Your task to perform on an android device: stop showing notifications on the lock screen Image 0: 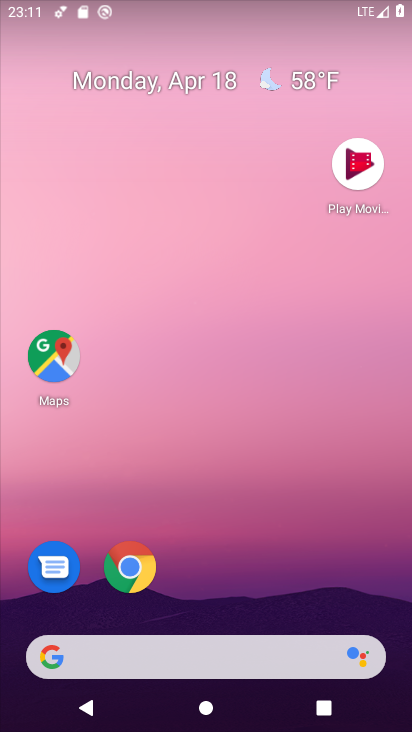
Step 0: drag from (193, 603) to (290, 107)
Your task to perform on an android device: stop showing notifications on the lock screen Image 1: 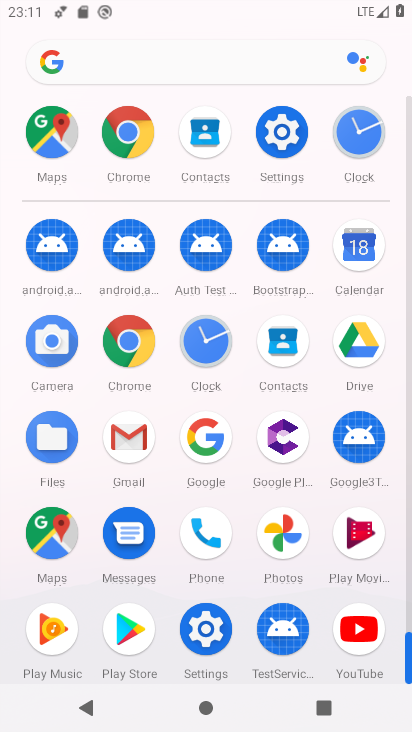
Step 1: click (286, 124)
Your task to perform on an android device: stop showing notifications on the lock screen Image 2: 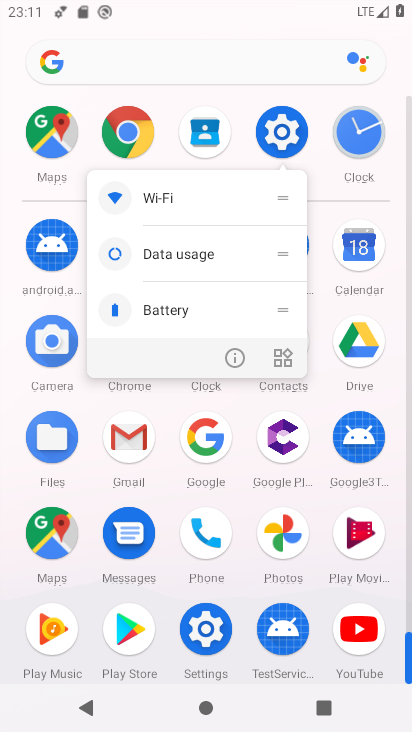
Step 2: click (237, 358)
Your task to perform on an android device: stop showing notifications on the lock screen Image 3: 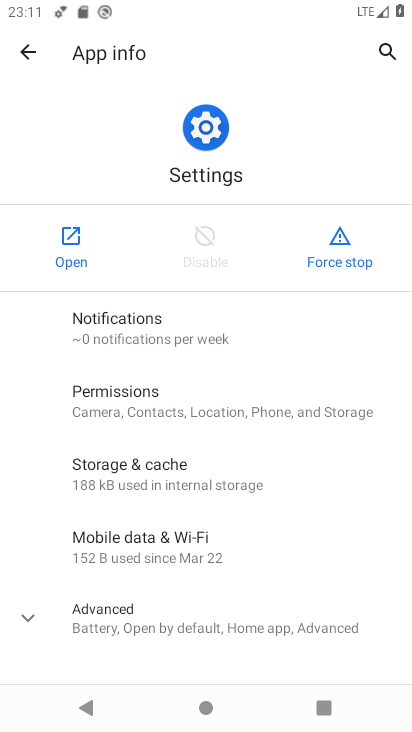
Step 3: click (71, 245)
Your task to perform on an android device: stop showing notifications on the lock screen Image 4: 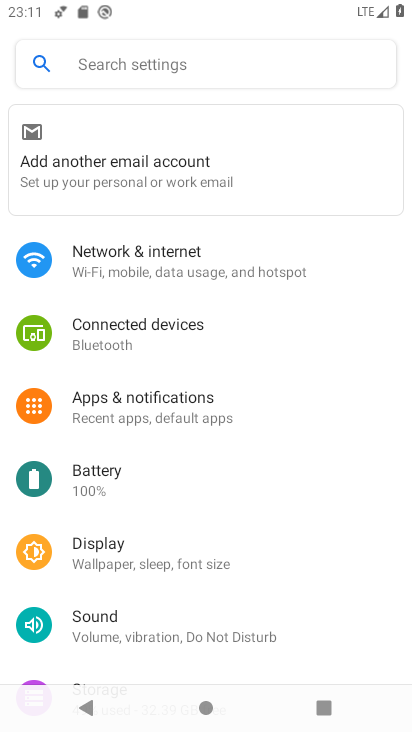
Step 4: click (231, 411)
Your task to perform on an android device: stop showing notifications on the lock screen Image 5: 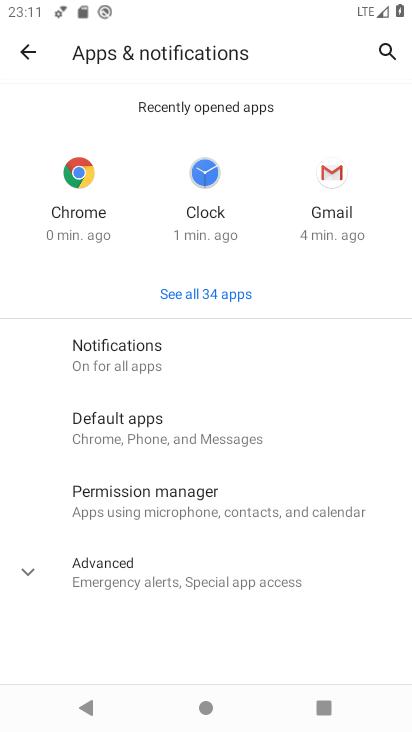
Step 5: click (175, 351)
Your task to perform on an android device: stop showing notifications on the lock screen Image 6: 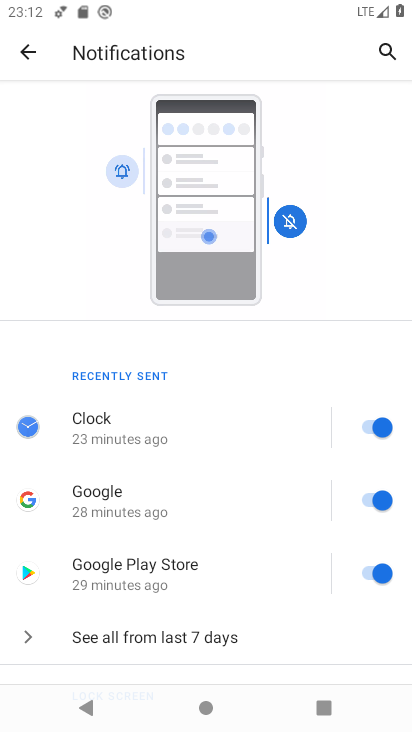
Step 6: drag from (250, 509) to (332, 18)
Your task to perform on an android device: stop showing notifications on the lock screen Image 7: 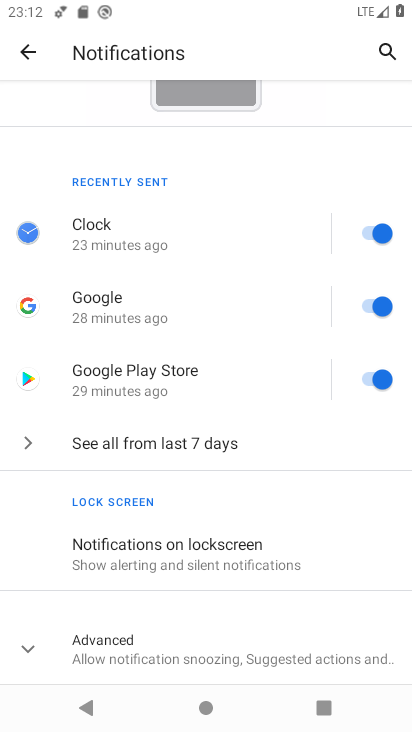
Step 7: click (221, 556)
Your task to perform on an android device: stop showing notifications on the lock screen Image 8: 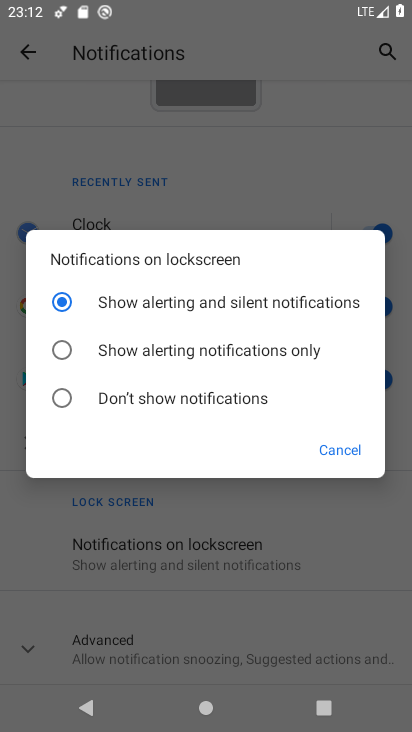
Step 8: click (73, 350)
Your task to perform on an android device: stop showing notifications on the lock screen Image 9: 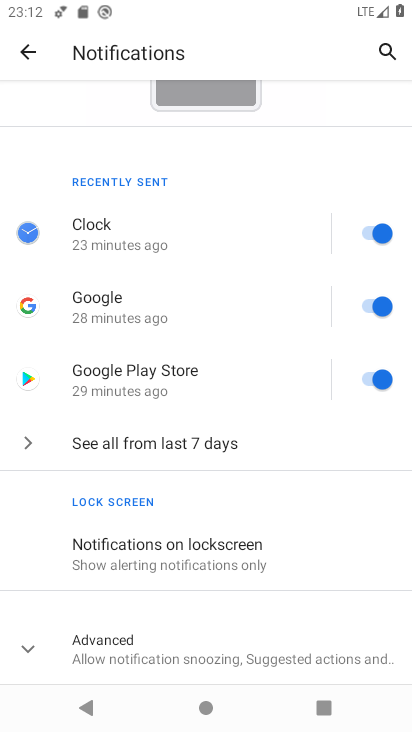
Step 9: task complete